Your task to perform on an android device: Search for Mexican restaurants on Maps Image 0: 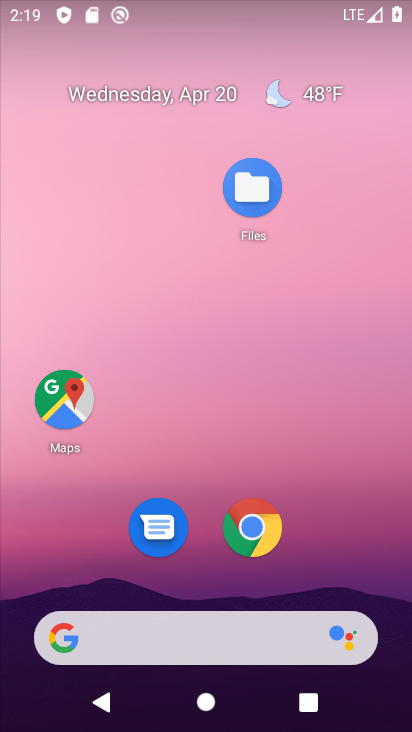
Step 0: click (72, 411)
Your task to perform on an android device: Search for Mexican restaurants on Maps Image 1: 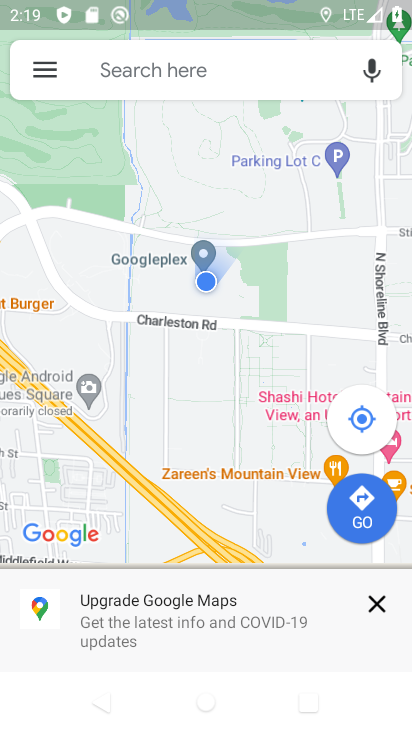
Step 1: click (215, 77)
Your task to perform on an android device: Search for Mexican restaurants on Maps Image 2: 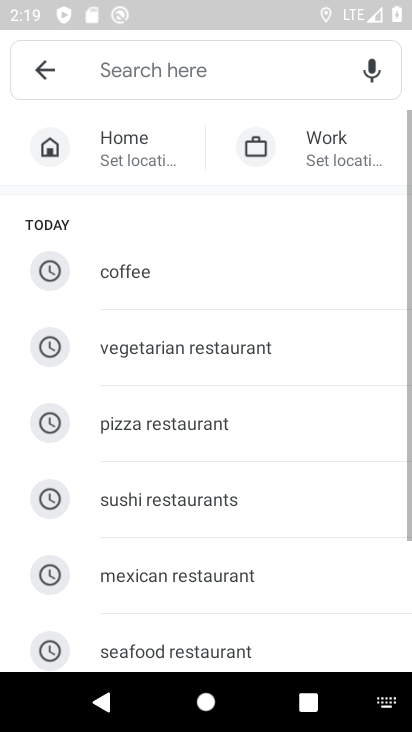
Step 2: click (145, 579)
Your task to perform on an android device: Search for Mexican restaurants on Maps Image 3: 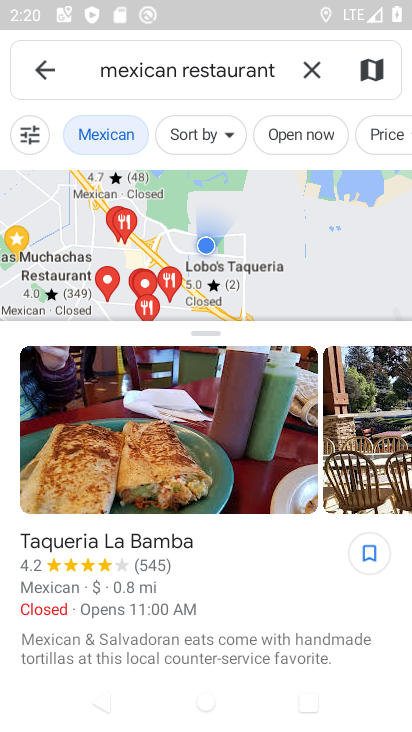
Step 3: task complete